Your task to perform on an android device: remove spam from my inbox in the gmail app Image 0: 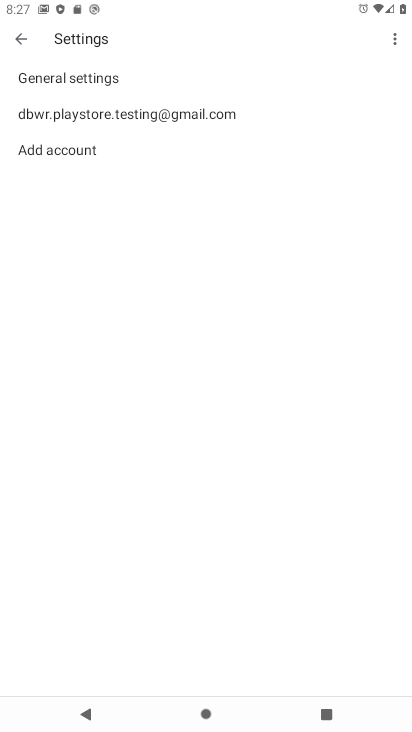
Step 0: press home button
Your task to perform on an android device: remove spam from my inbox in the gmail app Image 1: 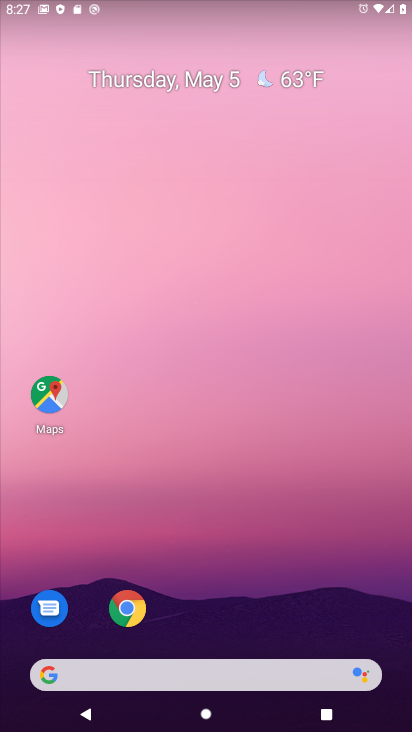
Step 1: drag from (214, 615) to (107, 314)
Your task to perform on an android device: remove spam from my inbox in the gmail app Image 2: 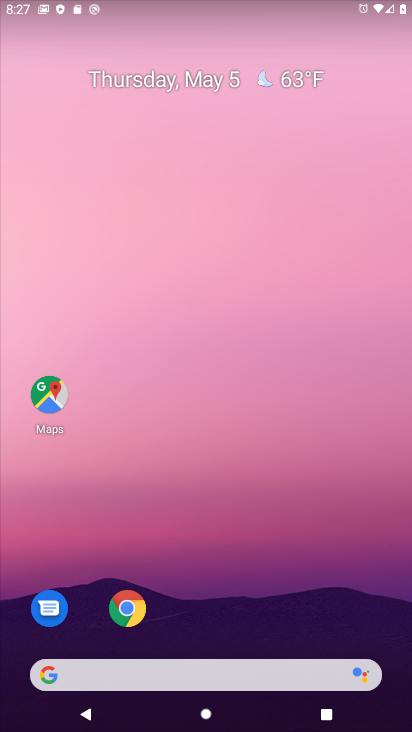
Step 2: drag from (179, 457) to (106, 53)
Your task to perform on an android device: remove spam from my inbox in the gmail app Image 3: 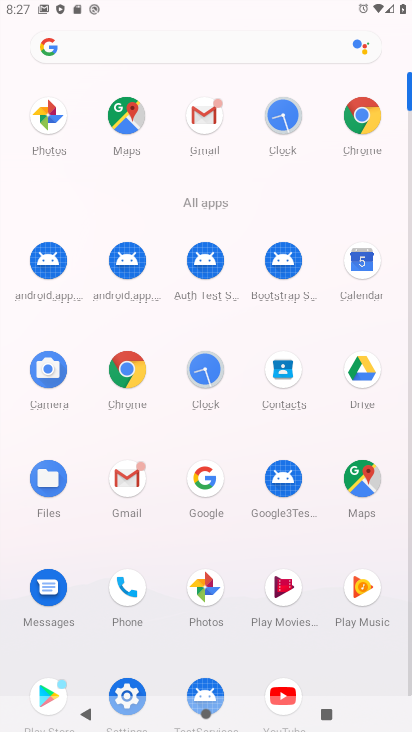
Step 3: click (200, 116)
Your task to perform on an android device: remove spam from my inbox in the gmail app Image 4: 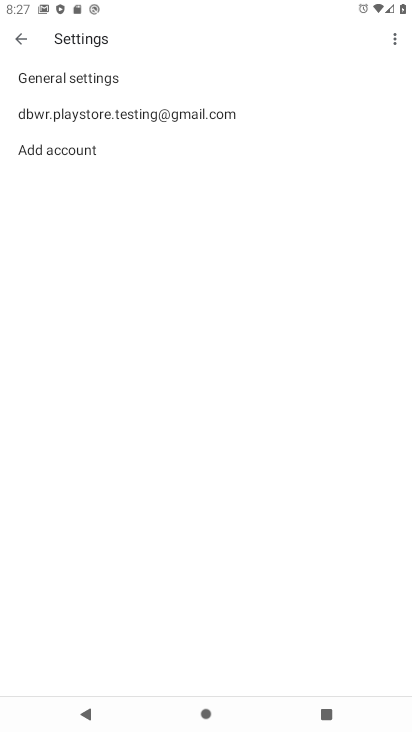
Step 4: press back button
Your task to perform on an android device: remove spam from my inbox in the gmail app Image 5: 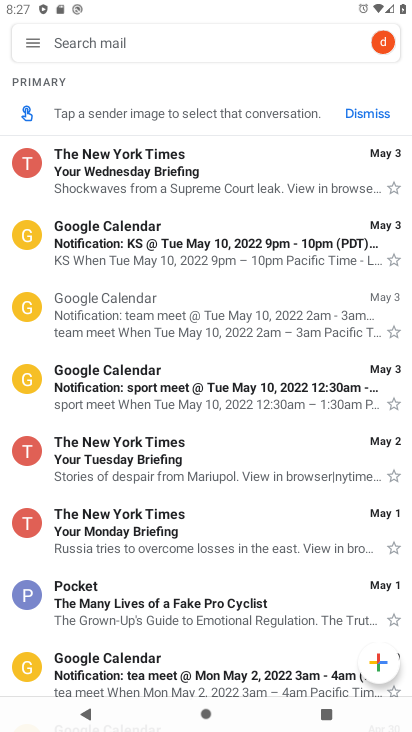
Step 5: click (33, 37)
Your task to perform on an android device: remove spam from my inbox in the gmail app Image 6: 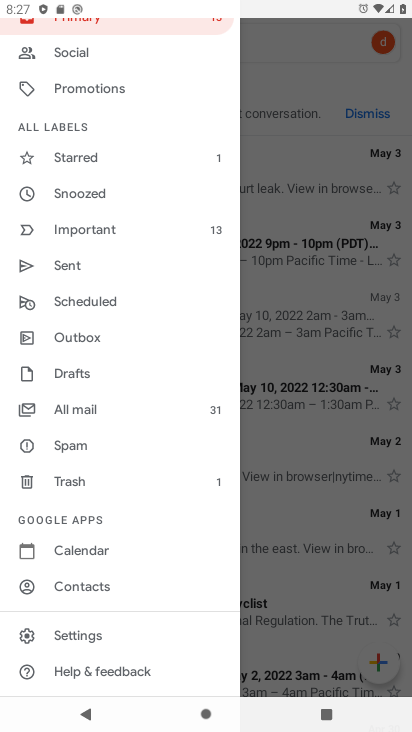
Step 6: click (85, 448)
Your task to perform on an android device: remove spam from my inbox in the gmail app Image 7: 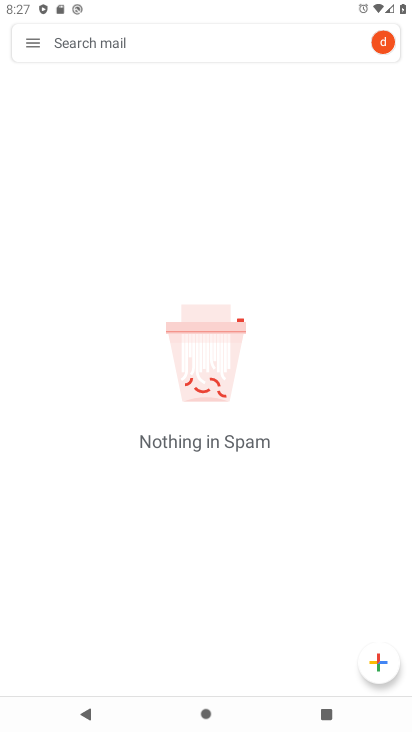
Step 7: task complete